Your task to perform on an android device: Open the stopwatch Image 0: 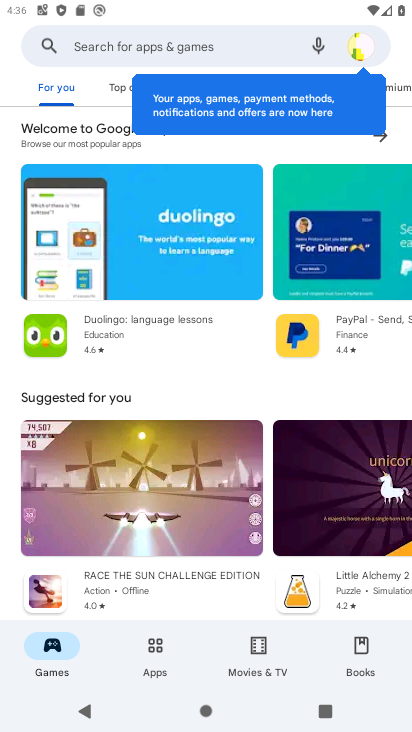
Step 0: press home button
Your task to perform on an android device: Open the stopwatch Image 1: 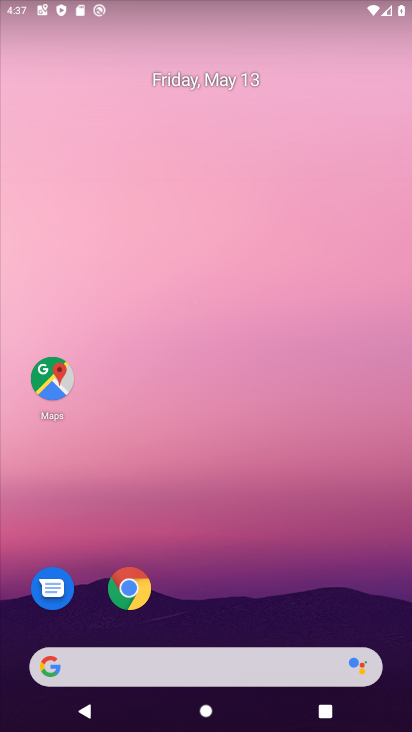
Step 1: drag from (288, 610) to (353, 9)
Your task to perform on an android device: Open the stopwatch Image 2: 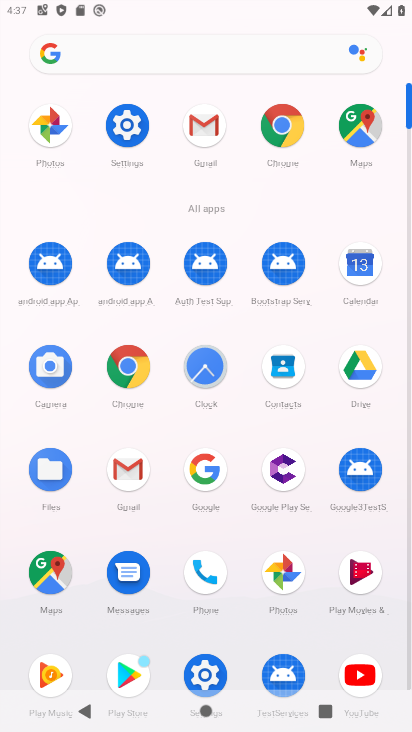
Step 2: click (215, 357)
Your task to perform on an android device: Open the stopwatch Image 3: 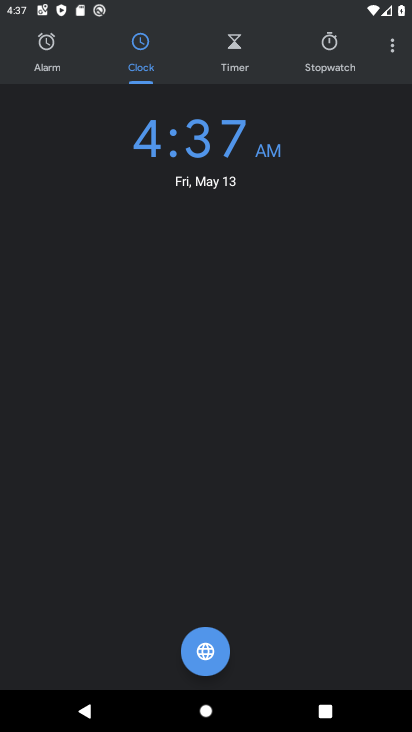
Step 3: click (309, 54)
Your task to perform on an android device: Open the stopwatch Image 4: 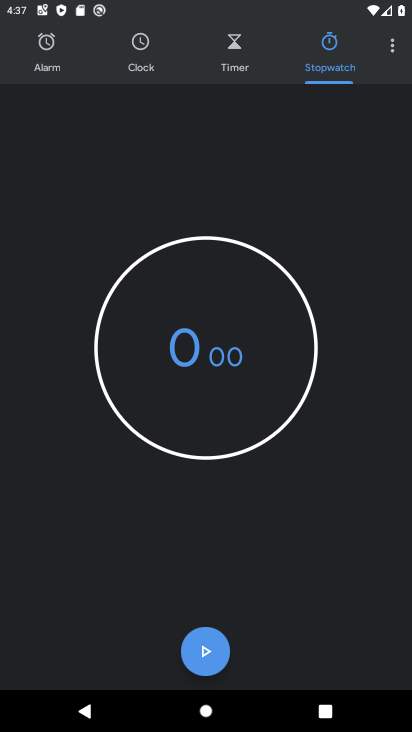
Step 4: task complete